Your task to perform on an android device: Open Yahoo.com Image 0: 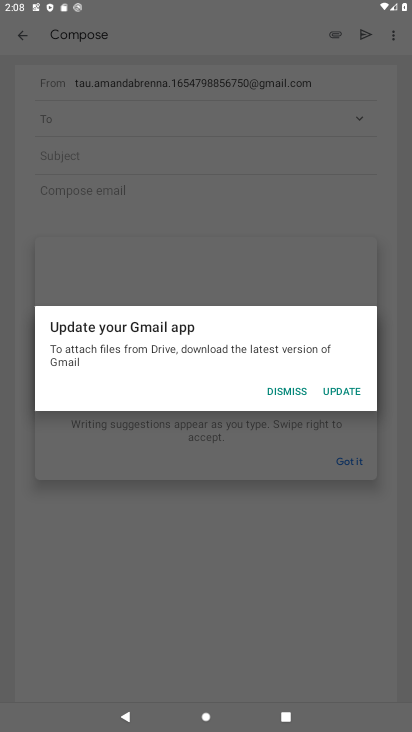
Step 0: press home button
Your task to perform on an android device: Open Yahoo.com Image 1: 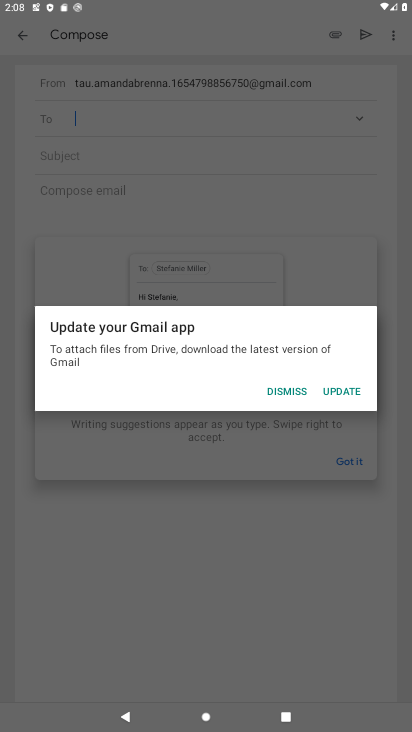
Step 1: drag from (256, 597) to (205, 36)
Your task to perform on an android device: Open Yahoo.com Image 2: 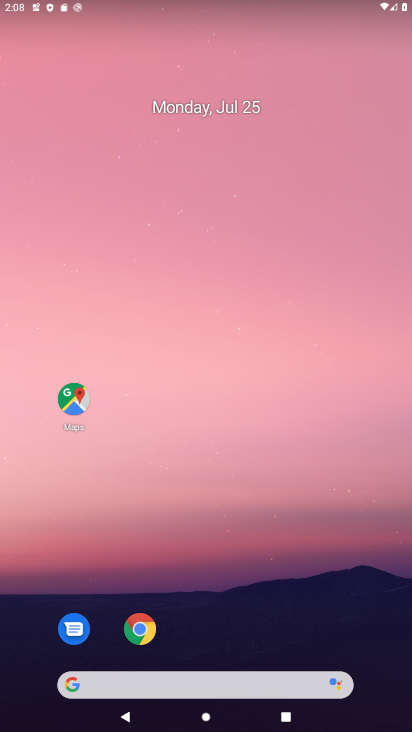
Step 2: drag from (217, 657) to (199, 51)
Your task to perform on an android device: Open Yahoo.com Image 3: 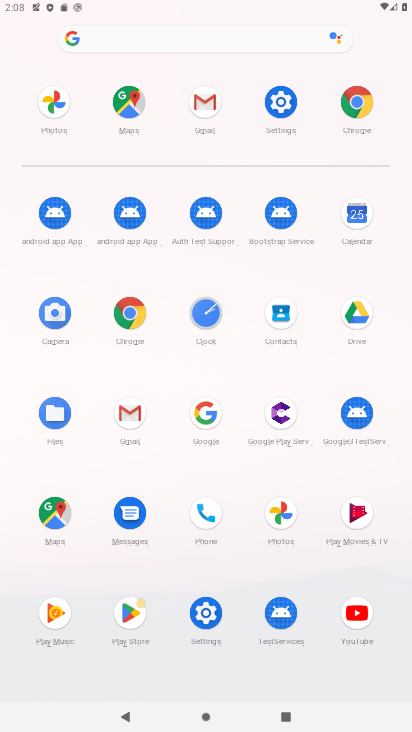
Step 3: click (140, 32)
Your task to perform on an android device: Open Yahoo.com Image 4: 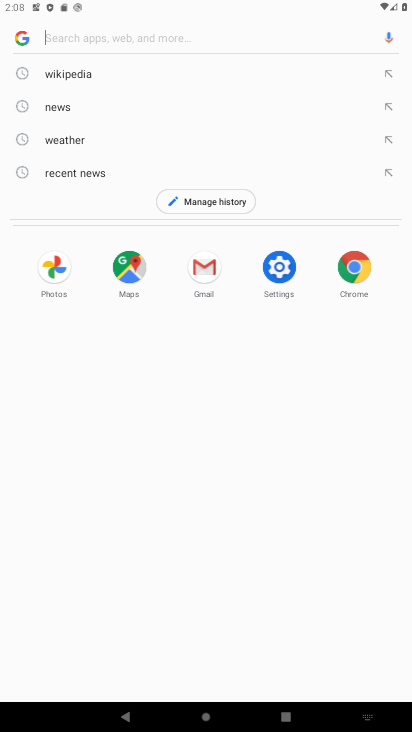
Step 4: type "Open Yahoo.com"
Your task to perform on an android device: Open Yahoo.com Image 5: 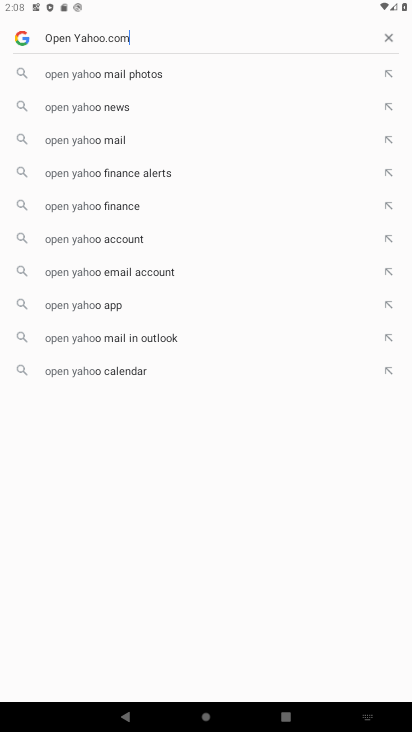
Step 5: type ""
Your task to perform on an android device: Open Yahoo.com Image 6: 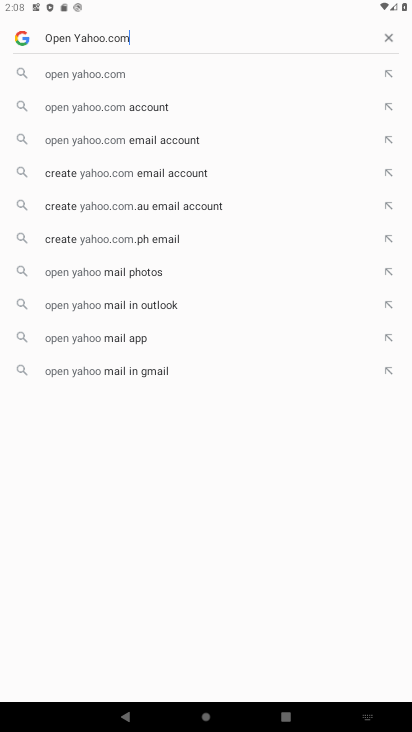
Step 6: click (118, 61)
Your task to perform on an android device: Open Yahoo.com Image 7: 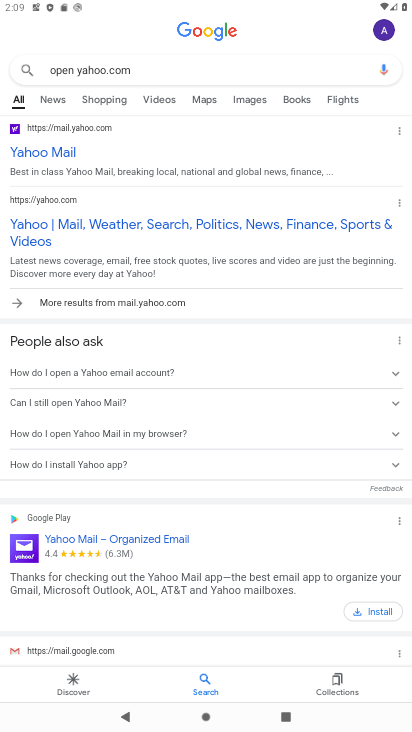
Step 7: click (43, 155)
Your task to perform on an android device: Open Yahoo.com Image 8: 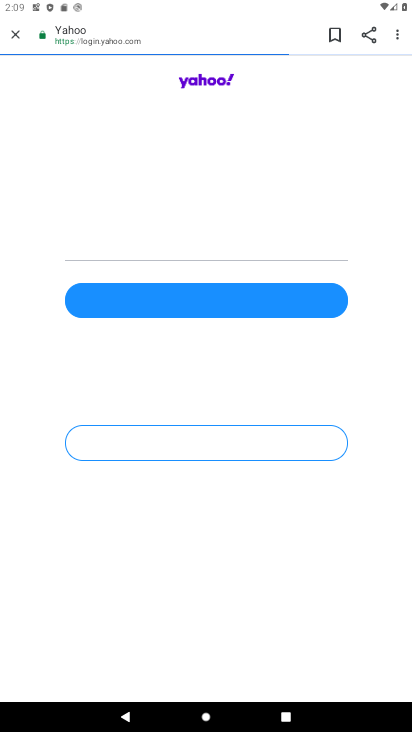
Step 8: task complete